Your task to perform on an android device: turn on the 24-hour format for clock Image 0: 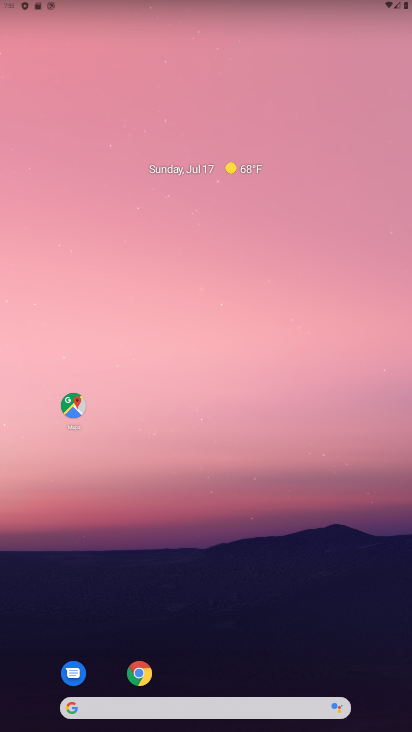
Step 0: drag from (276, 594) to (197, 233)
Your task to perform on an android device: turn on the 24-hour format for clock Image 1: 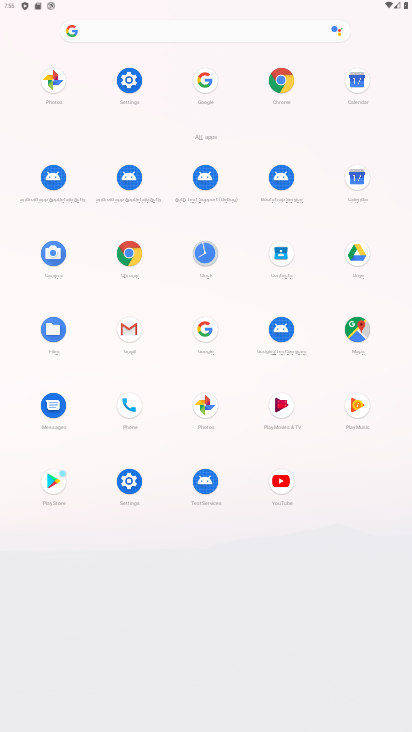
Step 1: click (229, 252)
Your task to perform on an android device: turn on the 24-hour format for clock Image 2: 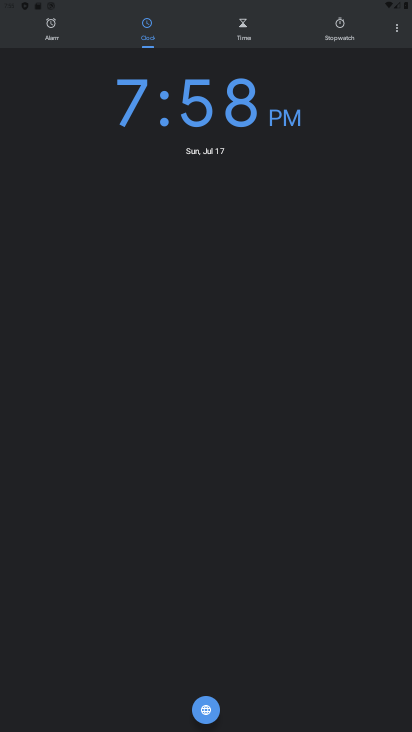
Step 2: click (400, 37)
Your task to perform on an android device: turn on the 24-hour format for clock Image 3: 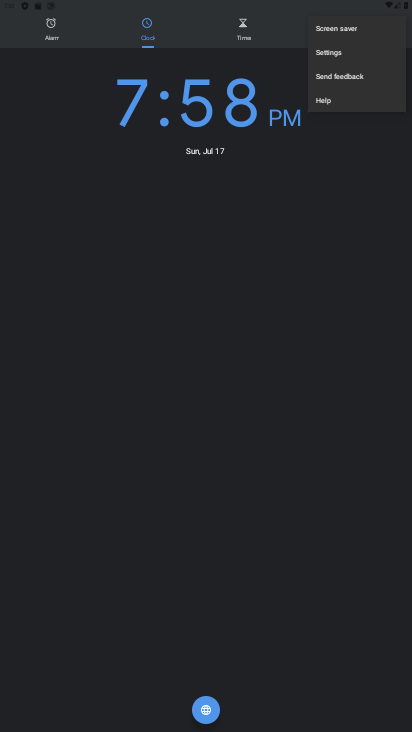
Step 3: click (338, 57)
Your task to perform on an android device: turn on the 24-hour format for clock Image 4: 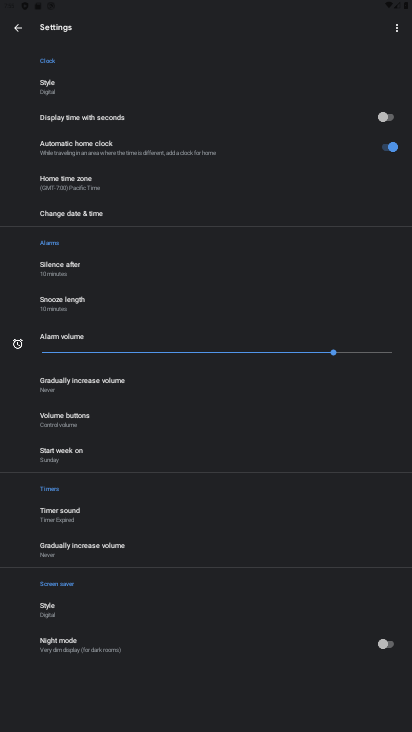
Step 4: click (64, 222)
Your task to perform on an android device: turn on the 24-hour format for clock Image 5: 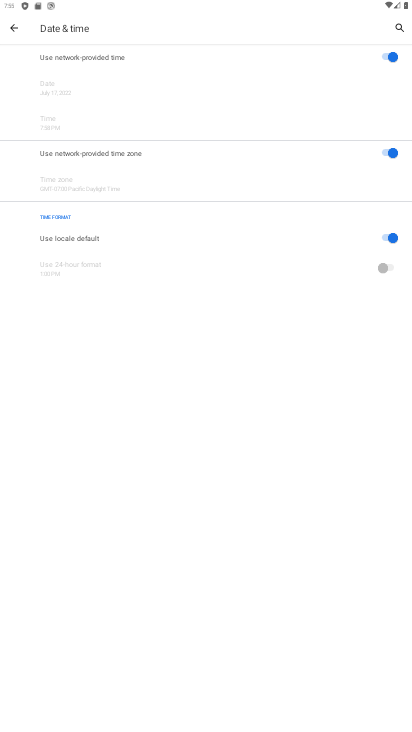
Step 5: click (393, 228)
Your task to perform on an android device: turn on the 24-hour format for clock Image 6: 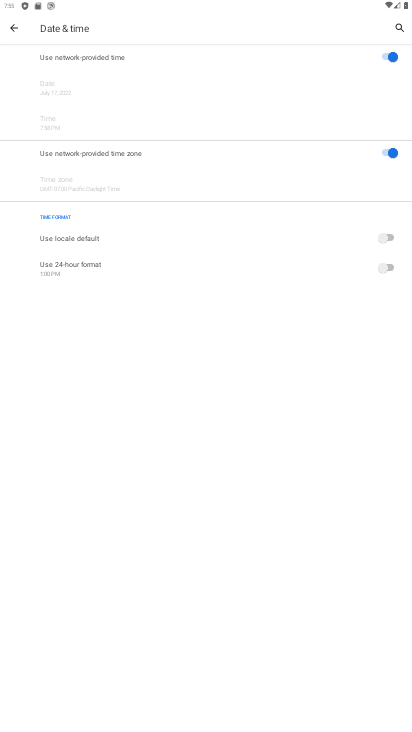
Step 6: click (386, 272)
Your task to perform on an android device: turn on the 24-hour format for clock Image 7: 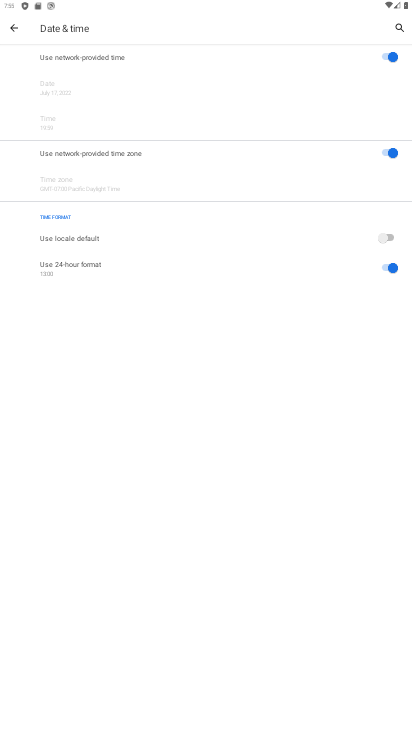
Step 7: task complete